Your task to perform on an android device: Check the weather Image 0: 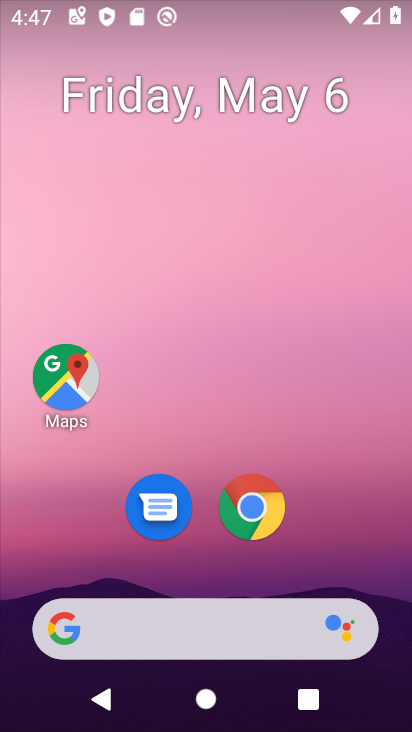
Step 0: click (222, 617)
Your task to perform on an android device: Check the weather Image 1: 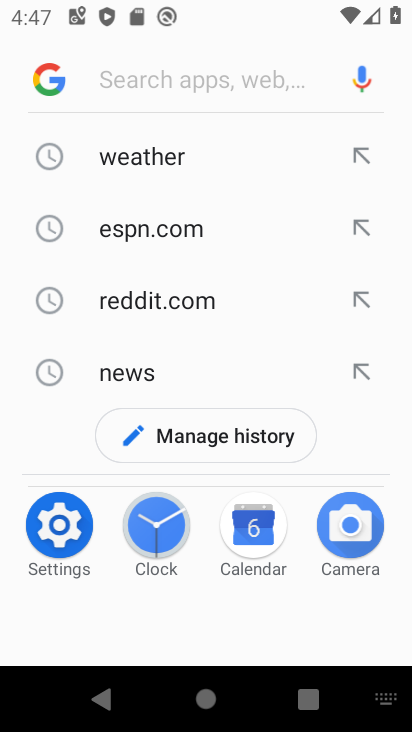
Step 1: click (138, 156)
Your task to perform on an android device: Check the weather Image 2: 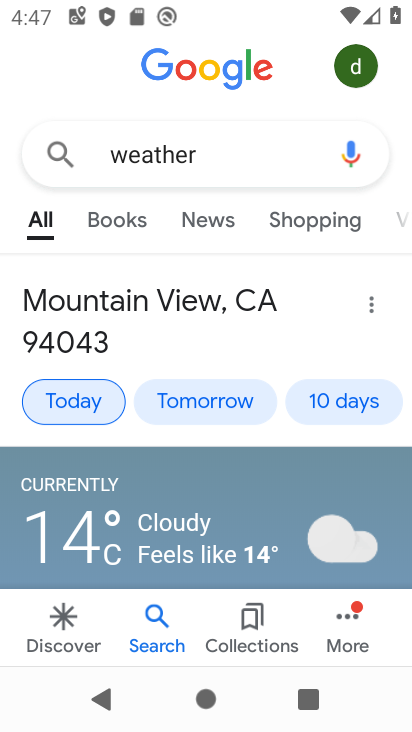
Step 2: task complete